Your task to perform on an android device: move a message to another label in the gmail app Image 0: 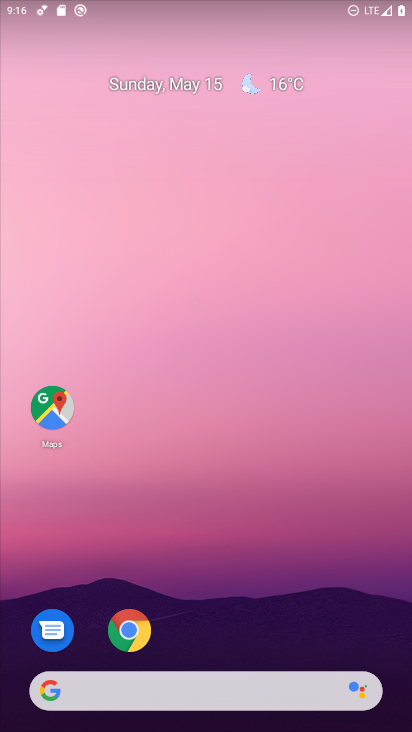
Step 0: drag from (287, 403) to (298, 332)
Your task to perform on an android device: move a message to another label in the gmail app Image 1: 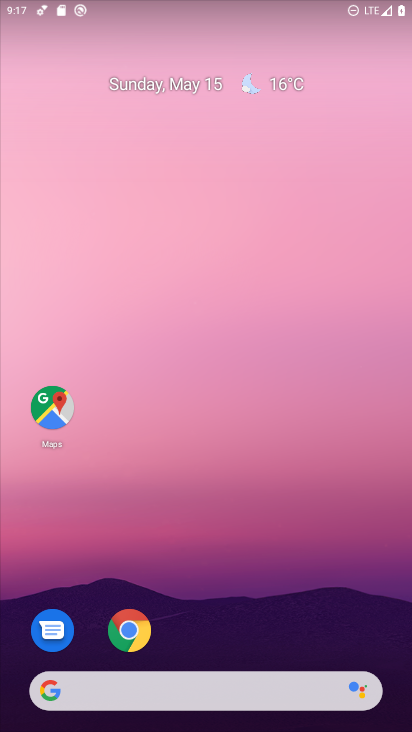
Step 1: drag from (172, 663) to (261, 227)
Your task to perform on an android device: move a message to another label in the gmail app Image 2: 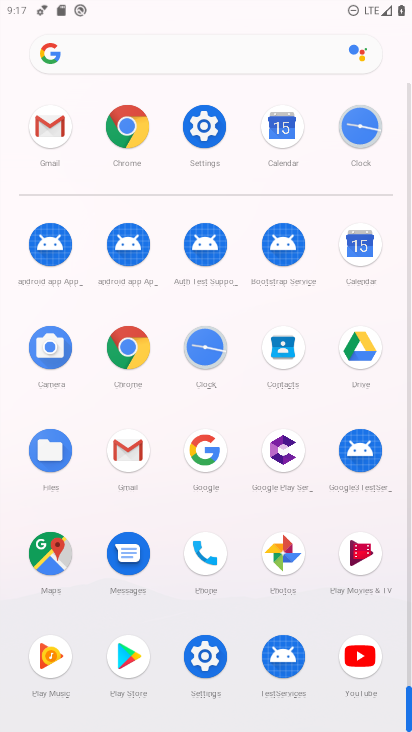
Step 2: click (118, 458)
Your task to perform on an android device: move a message to another label in the gmail app Image 3: 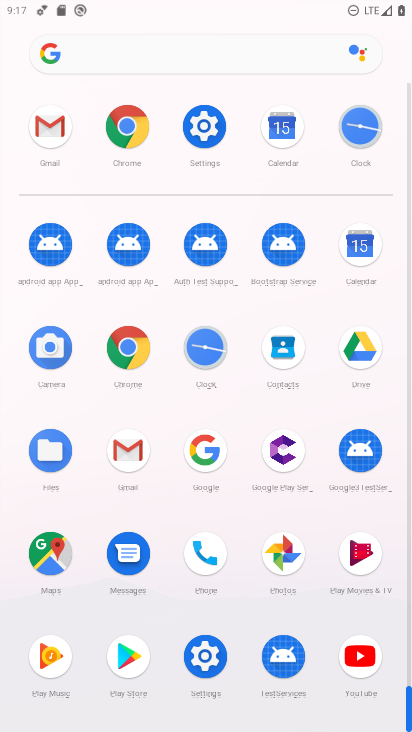
Step 3: click (117, 458)
Your task to perform on an android device: move a message to another label in the gmail app Image 4: 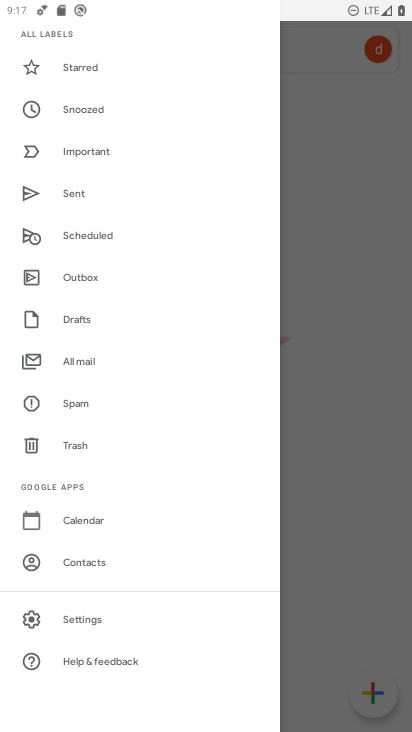
Step 4: click (90, 606)
Your task to perform on an android device: move a message to another label in the gmail app Image 5: 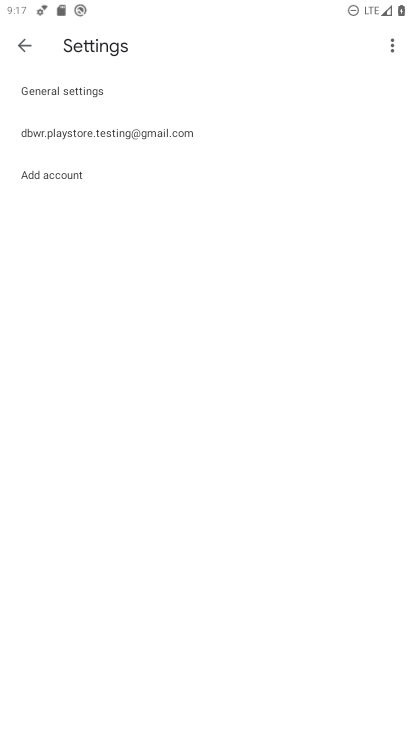
Step 5: click (16, 58)
Your task to perform on an android device: move a message to another label in the gmail app Image 6: 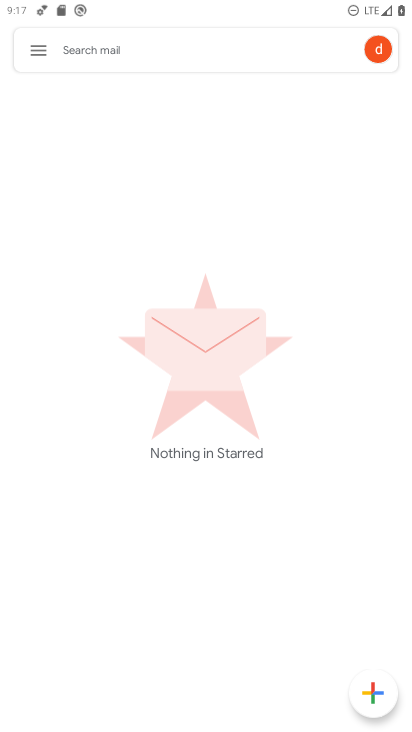
Step 6: task complete